Your task to perform on an android device: Open Yahoo.com Image 0: 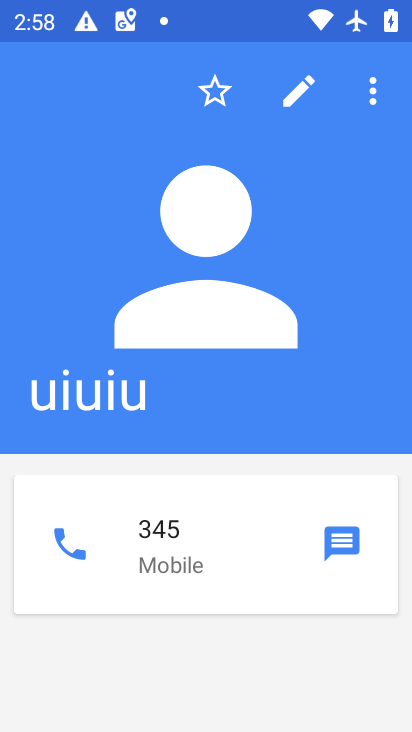
Step 0: press home button
Your task to perform on an android device: Open Yahoo.com Image 1: 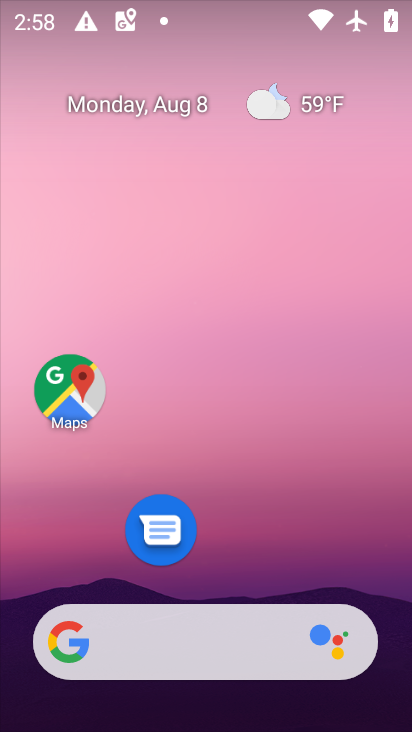
Step 1: drag from (224, 588) to (211, 64)
Your task to perform on an android device: Open Yahoo.com Image 2: 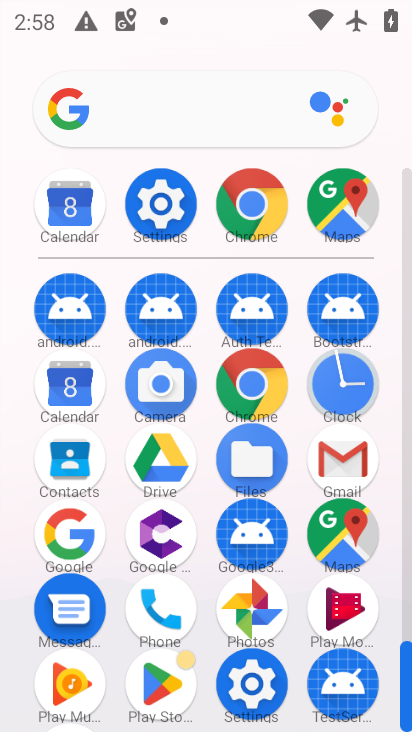
Step 2: click (249, 384)
Your task to perform on an android device: Open Yahoo.com Image 3: 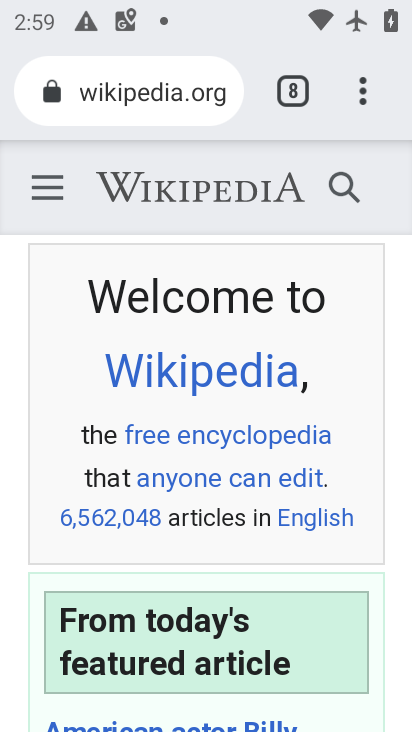
Step 3: drag from (360, 90) to (80, 190)
Your task to perform on an android device: Open Yahoo.com Image 4: 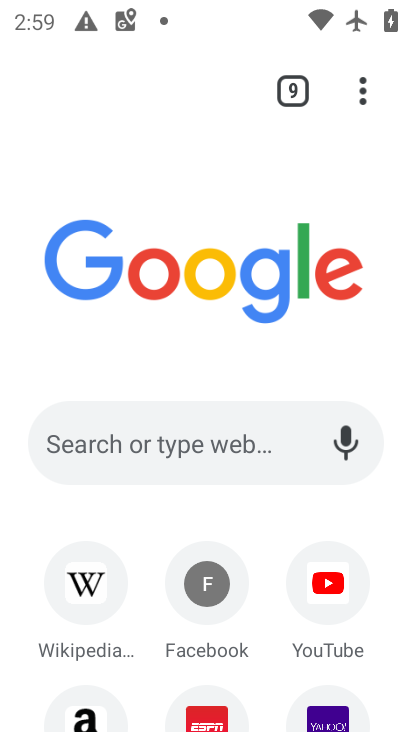
Step 4: click (324, 710)
Your task to perform on an android device: Open Yahoo.com Image 5: 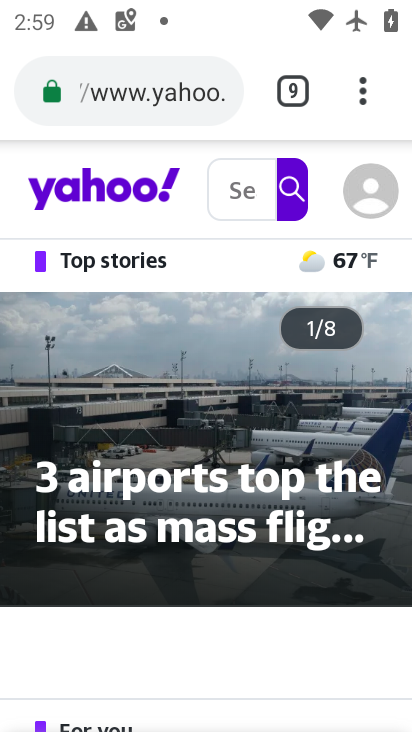
Step 5: task complete